Your task to perform on an android device: open device folders in google photos Image 0: 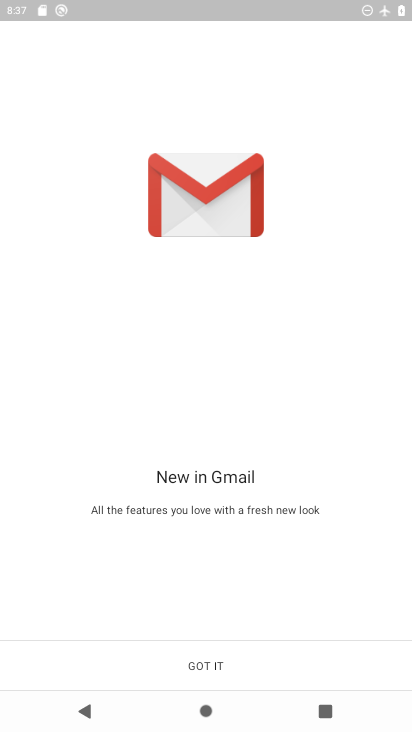
Step 0: press home button
Your task to perform on an android device: open device folders in google photos Image 1: 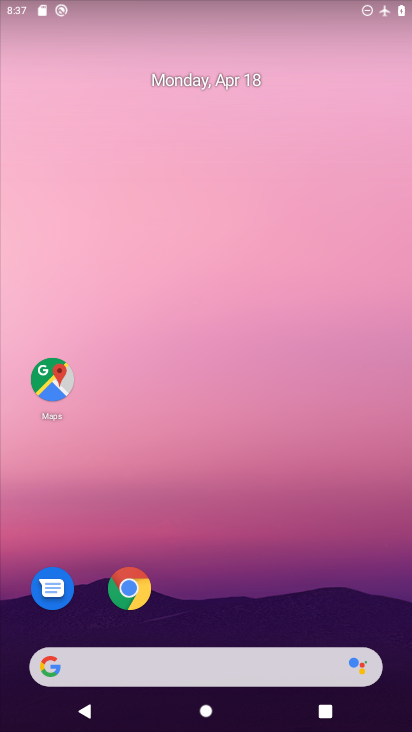
Step 1: drag from (187, 581) to (248, 94)
Your task to perform on an android device: open device folders in google photos Image 2: 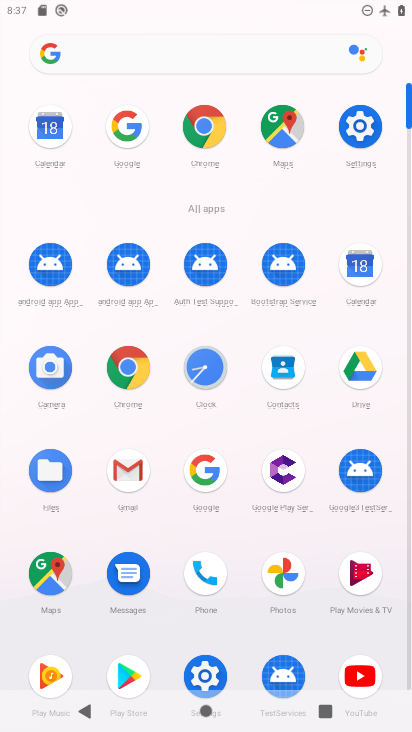
Step 2: click (290, 561)
Your task to perform on an android device: open device folders in google photos Image 3: 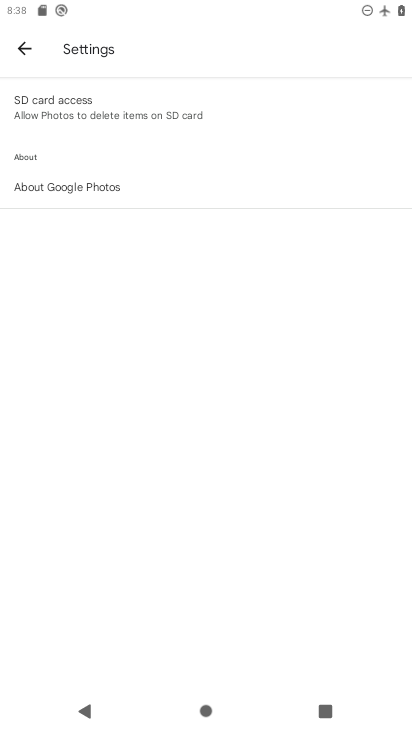
Step 3: click (15, 46)
Your task to perform on an android device: open device folders in google photos Image 4: 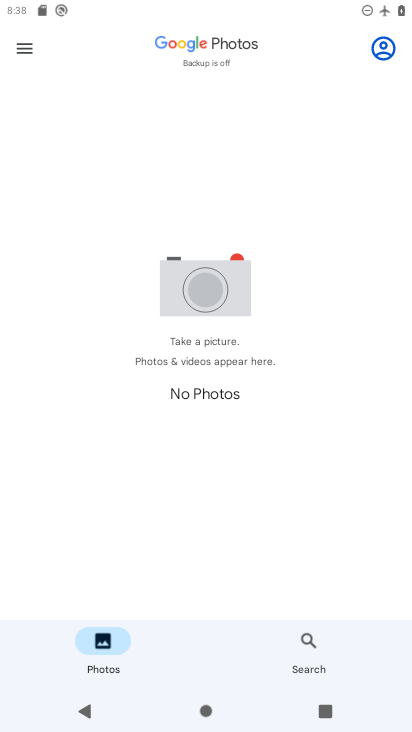
Step 4: click (21, 44)
Your task to perform on an android device: open device folders in google photos Image 5: 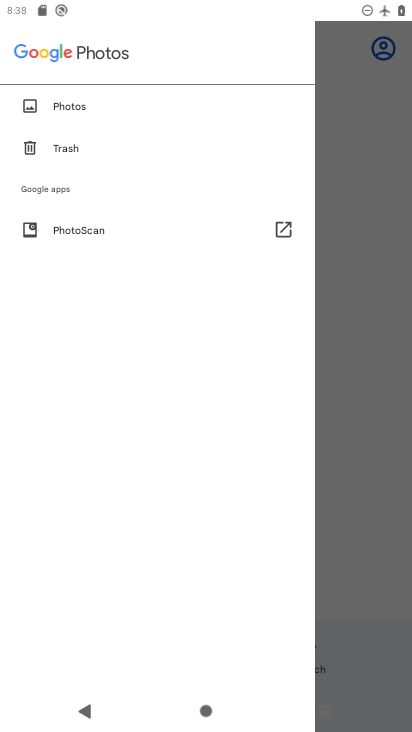
Step 5: click (348, 149)
Your task to perform on an android device: open device folders in google photos Image 6: 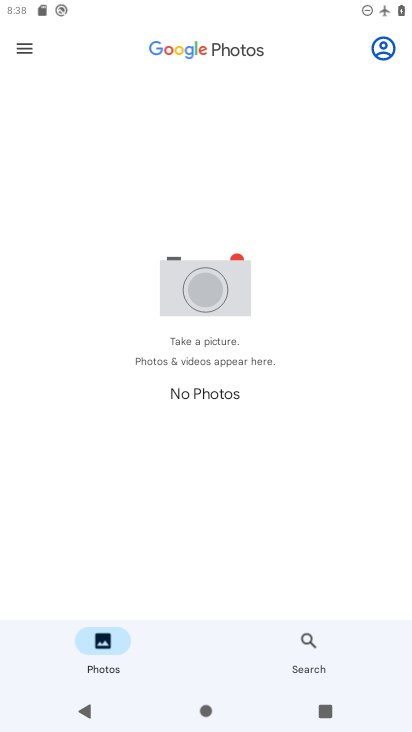
Step 6: task complete